Your task to perform on an android device: Open Chrome and go to settings Image 0: 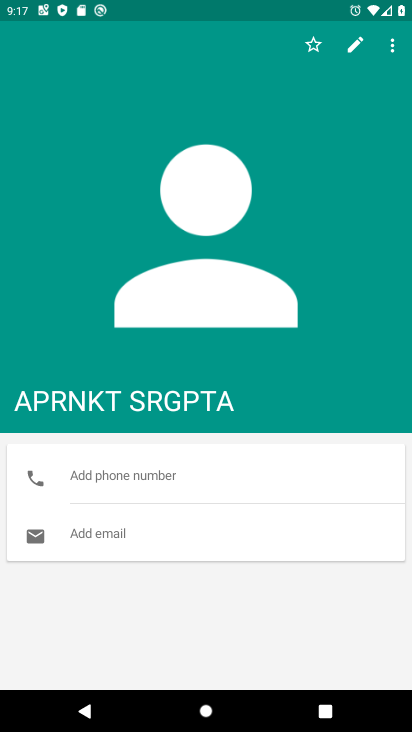
Step 0: press home button
Your task to perform on an android device: Open Chrome and go to settings Image 1: 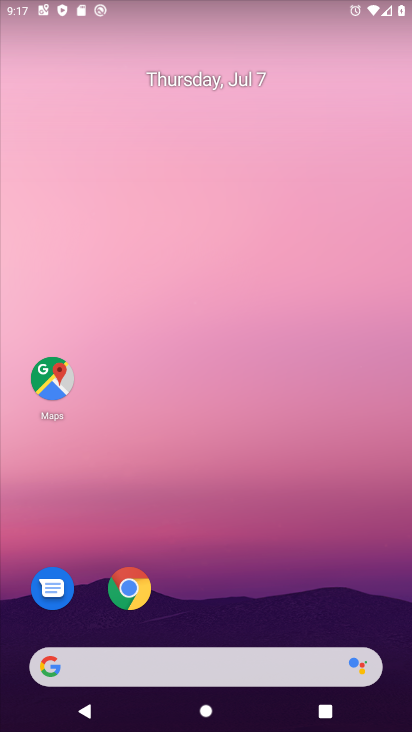
Step 1: click (132, 580)
Your task to perform on an android device: Open Chrome and go to settings Image 2: 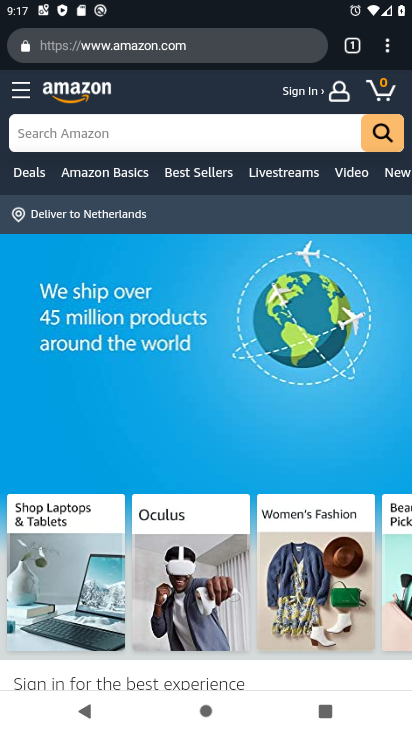
Step 2: click (385, 47)
Your task to perform on an android device: Open Chrome and go to settings Image 3: 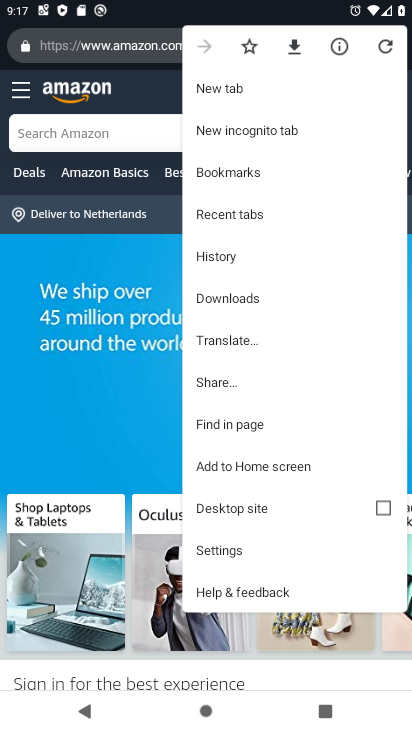
Step 3: click (255, 549)
Your task to perform on an android device: Open Chrome and go to settings Image 4: 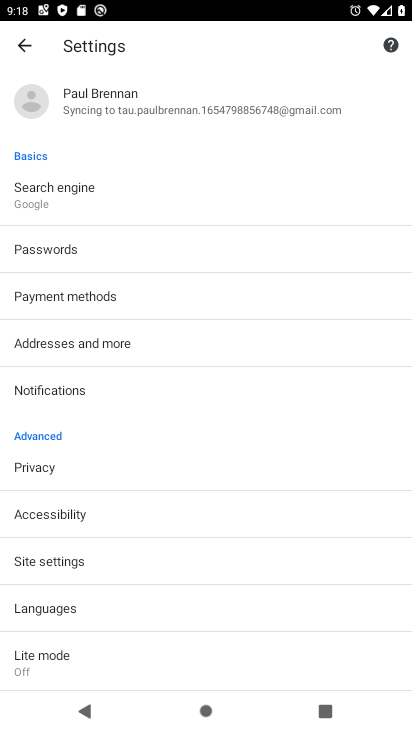
Step 4: task complete